Your task to perform on an android device: change alarm snooze length Image 0: 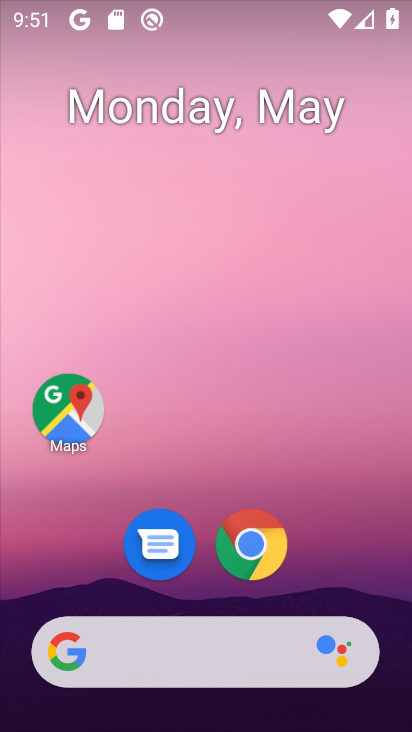
Step 0: drag from (311, 554) to (189, 121)
Your task to perform on an android device: change alarm snooze length Image 1: 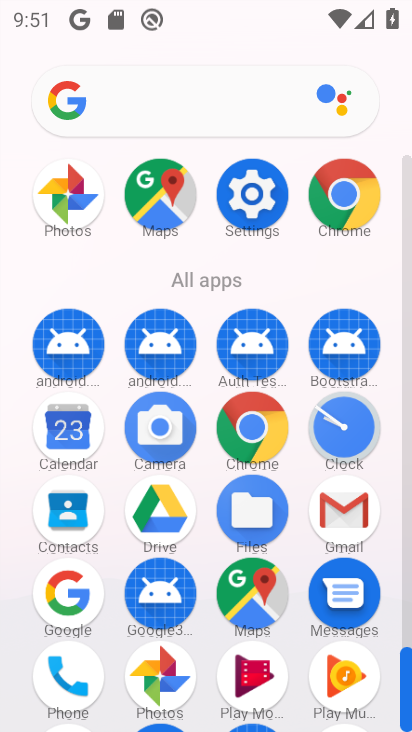
Step 1: click (339, 422)
Your task to perform on an android device: change alarm snooze length Image 2: 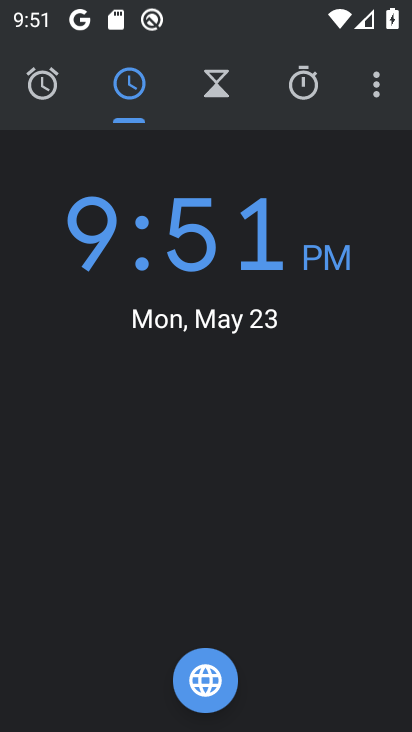
Step 2: click (379, 84)
Your task to perform on an android device: change alarm snooze length Image 3: 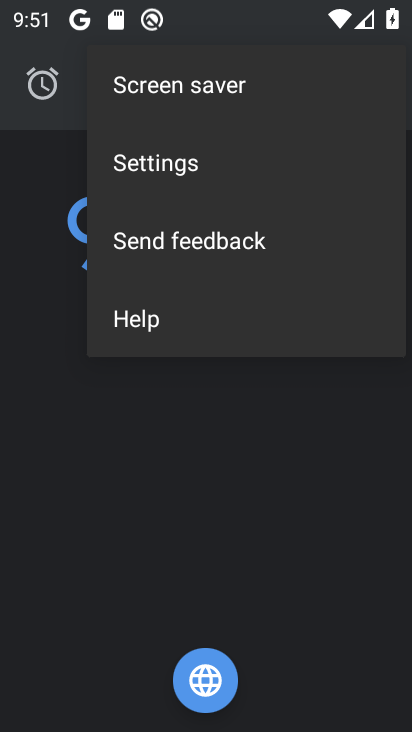
Step 3: click (164, 158)
Your task to perform on an android device: change alarm snooze length Image 4: 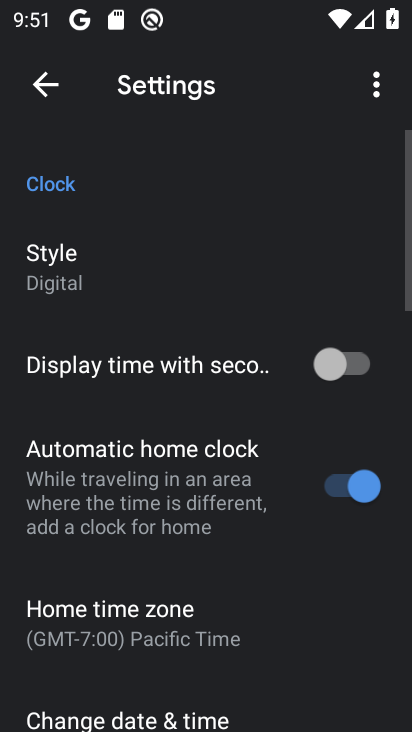
Step 4: drag from (183, 640) to (168, 134)
Your task to perform on an android device: change alarm snooze length Image 5: 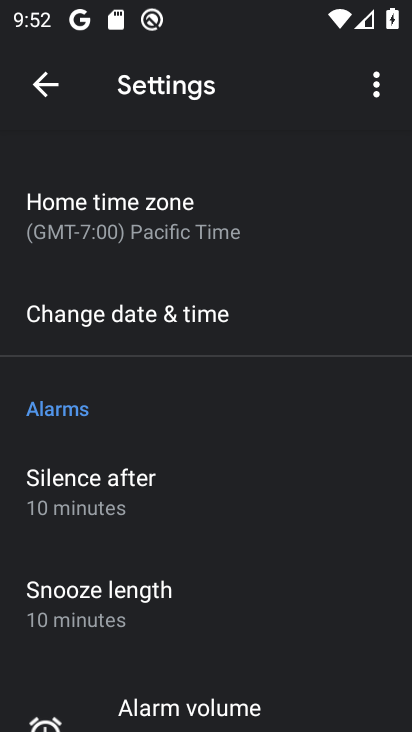
Step 5: click (120, 612)
Your task to perform on an android device: change alarm snooze length Image 6: 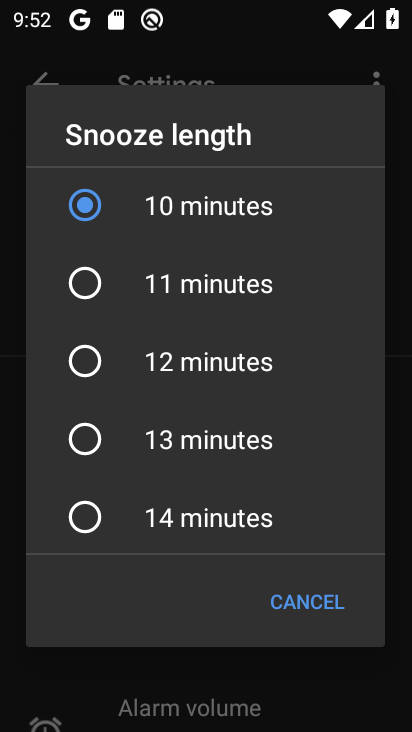
Step 6: click (79, 520)
Your task to perform on an android device: change alarm snooze length Image 7: 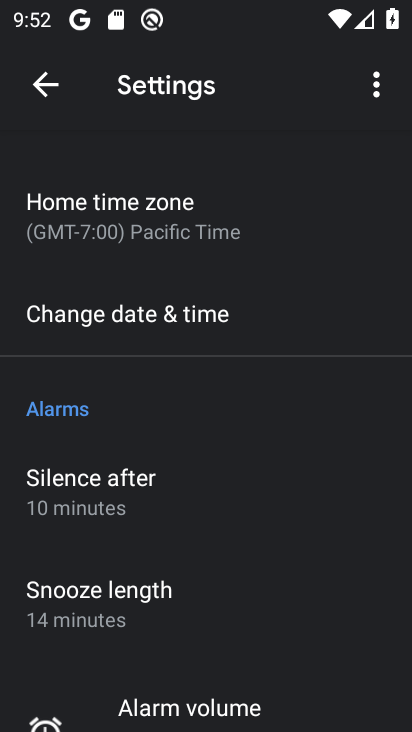
Step 7: task complete